Your task to perform on an android device: toggle notifications settings in the gmail app Image 0: 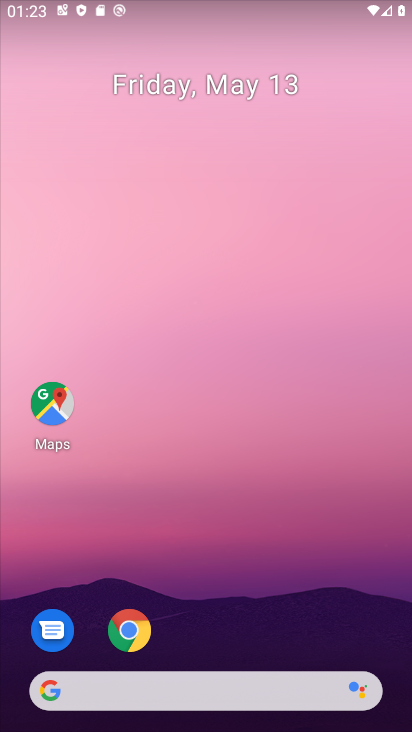
Step 0: drag from (227, 725) to (201, 225)
Your task to perform on an android device: toggle notifications settings in the gmail app Image 1: 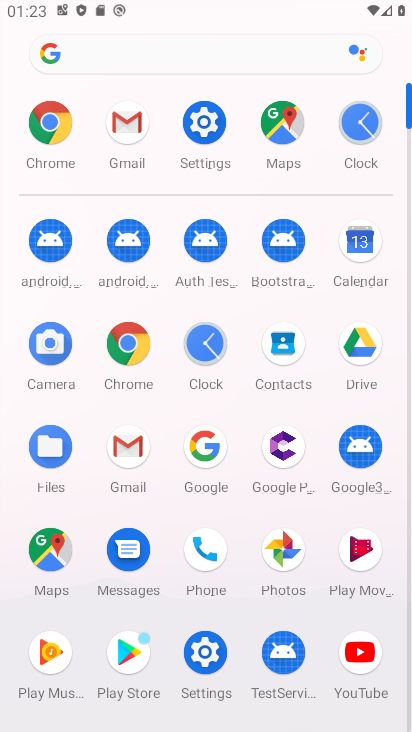
Step 1: click (148, 440)
Your task to perform on an android device: toggle notifications settings in the gmail app Image 2: 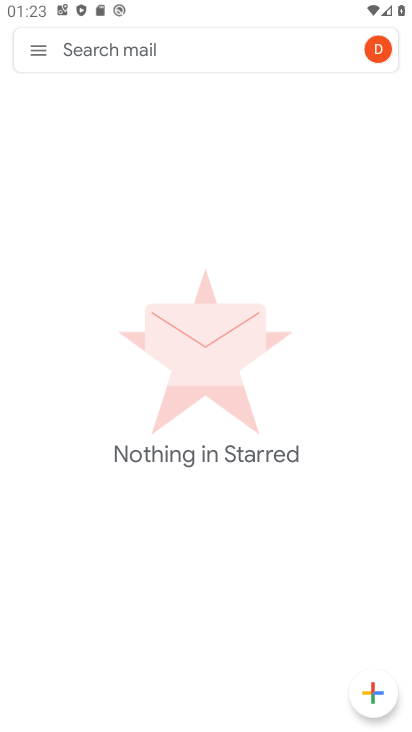
Step 2: click (43, 42)
Your task to perform on an android device: toggle notifications settings in the gmail app Image 3: 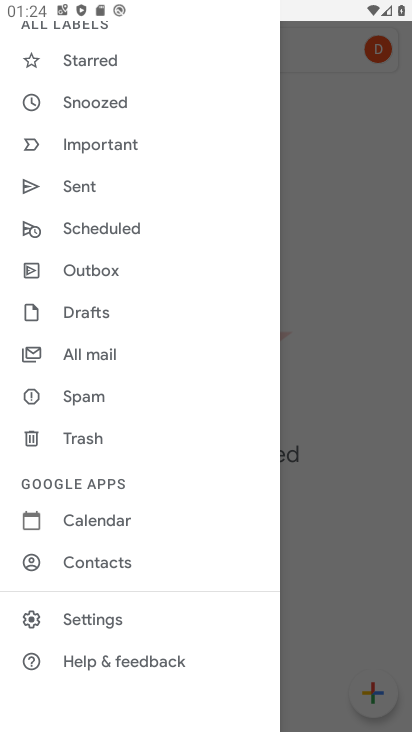
Step 3: click (92, 612)
Your task to perform on an android device: toggle notifications settings in the gmail app Image 4: 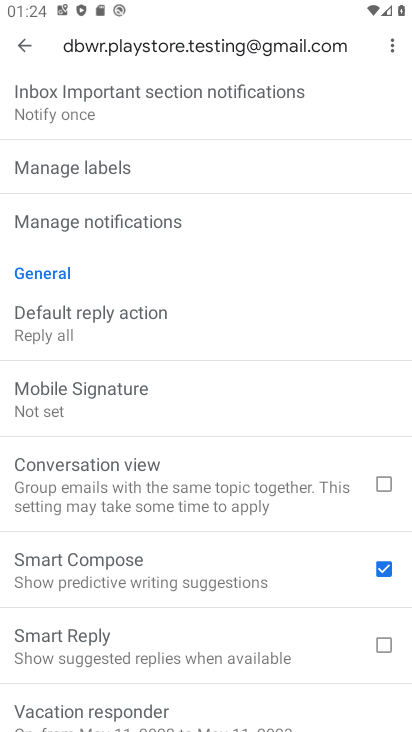
Step 4: drag from (127, 316) to (84, 730)
Your task to perform on an android device: toggle notifications settings in the gmail app Image 5: 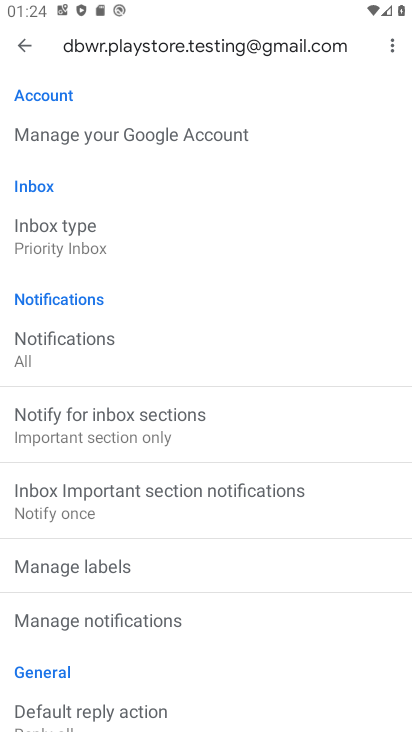
Step 5: click (99, 356)
Your task to perform on an android device: toggle notifications settings in the gmail app Image 6: 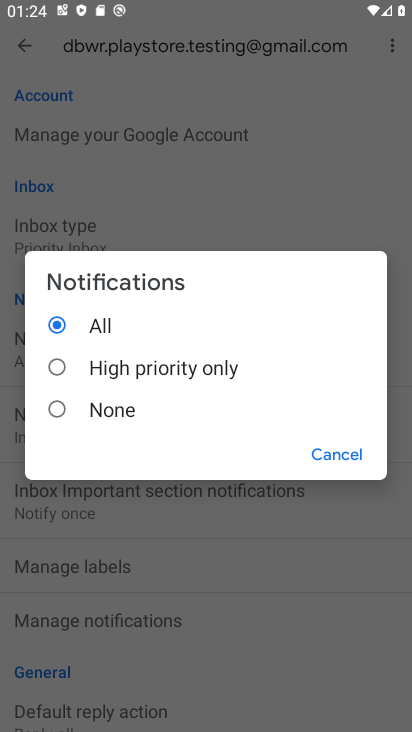
Step 6: task complete